Your task to perform on an android device: What's the weather going to be this weekend? Image 0: 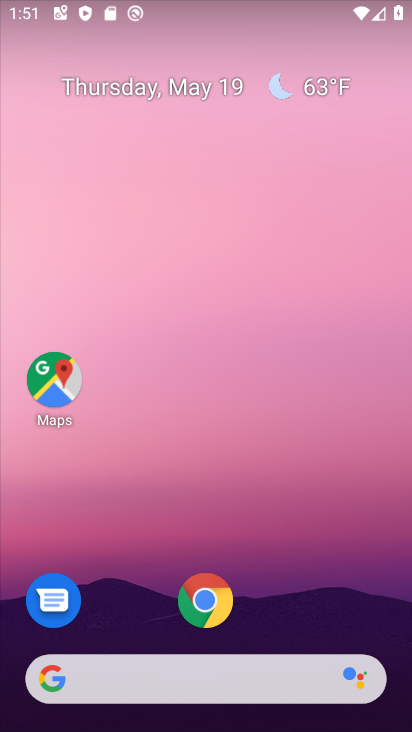
Step 0: drag from (300, 619) to (329, 246)
Your task to perform on an android device: What's the weather going to be this weekend? Image 1: 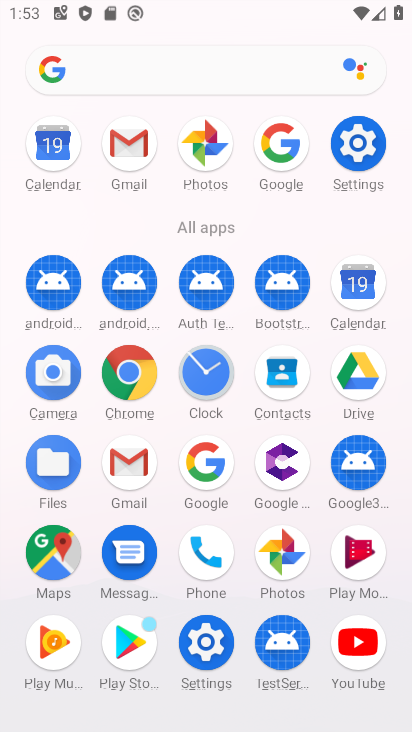
Step 1: drag from (147, 220) to (175, 726)
Your task to perform on an android device: What's the weather going to be this weekend? Image 2: 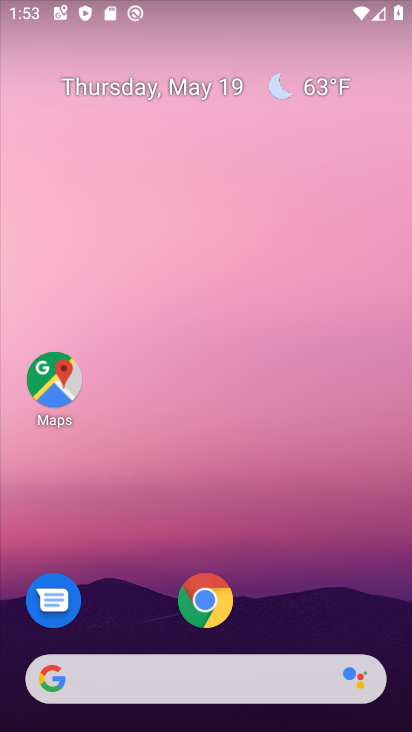
Step 2: click (333, 88)
Your task to perform on an android device: What's the weather going to be this weekend? Image 3: 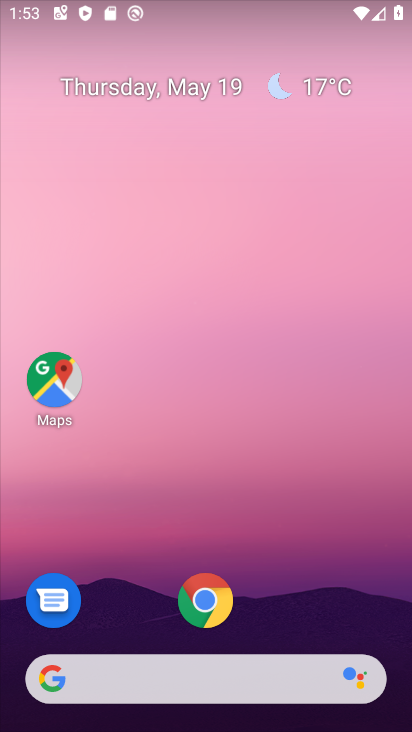
Step 3: click (325, 85)
Your task to perform on an android device: What's the weather going to be this weekend? Image 4: 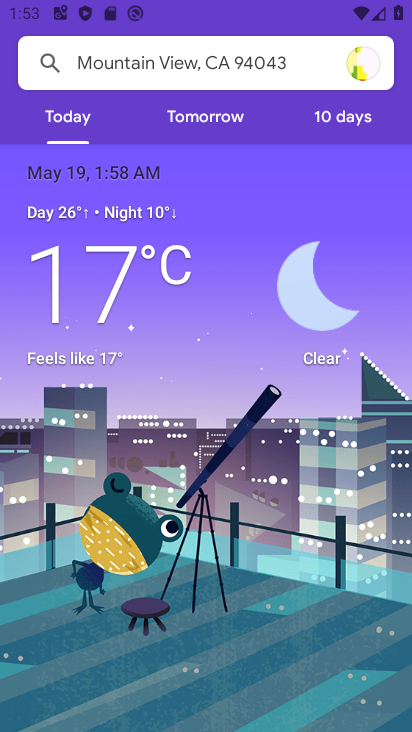
Step 4: drag from (281, 119) to (334, 120)
Your task to perform on an android device: What's the weather going to be this weekend? Image 5: 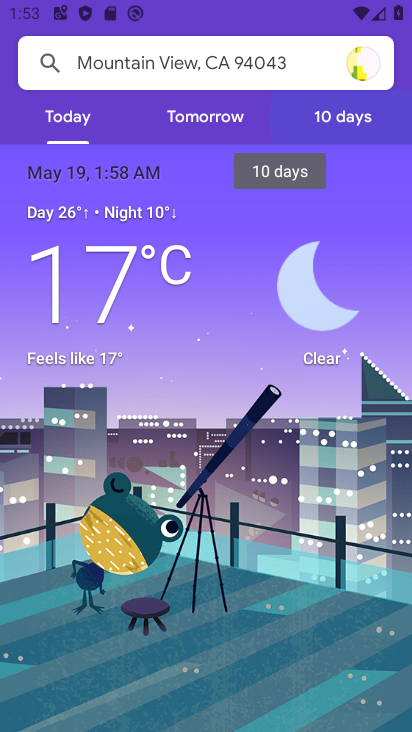
Step 5: click (333, 120)
Your task to perform on an android device: What's the weather going to be this weekend? Image 6: 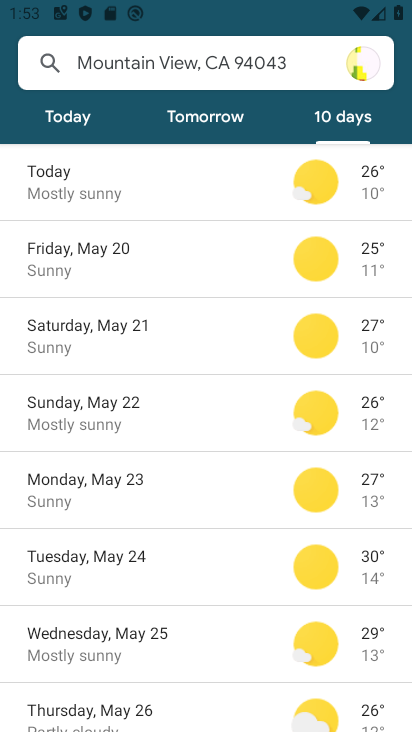
Step 6: task complete